Your task to perform on an android device: When is my next meeting? Image 0: 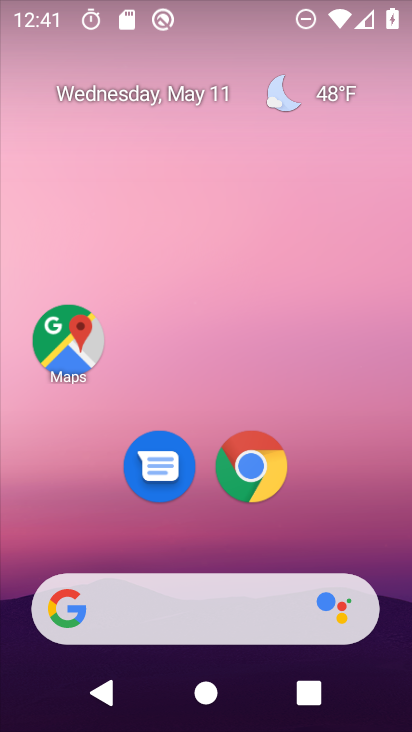
Step 0: press home button
Your task to perform on an android device: When is my next meeting? Image 1: 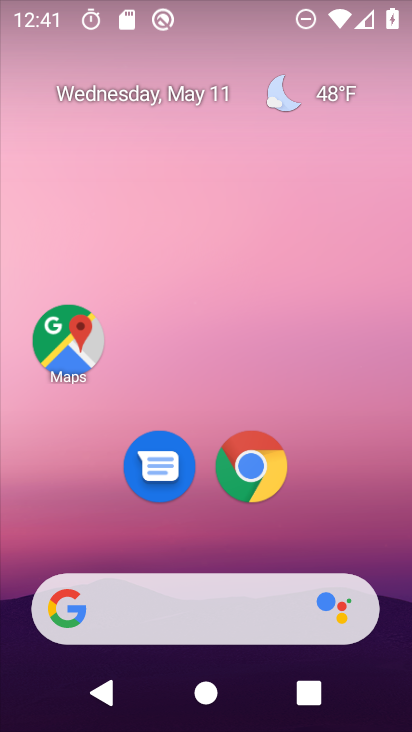
Step 1: drag from (210, 544) to (251, 24)
Your task to perform on an android device: When is my next meeting? Image 2: 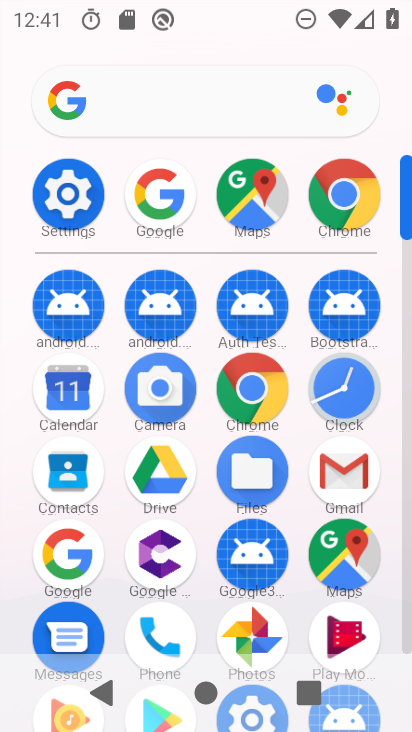
Step 2: click (64, 389)
Your task to perform on an android device: When is my next meeting? Image 3: 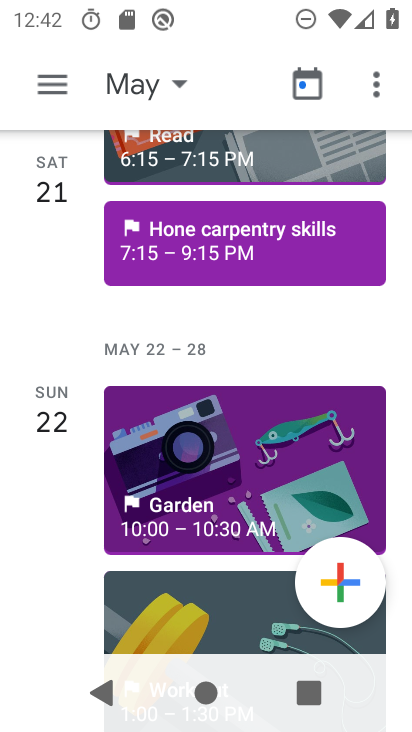
Step 3: click (55, 78)
Your task to perform on an android device: When is my next meeting? Image 4: 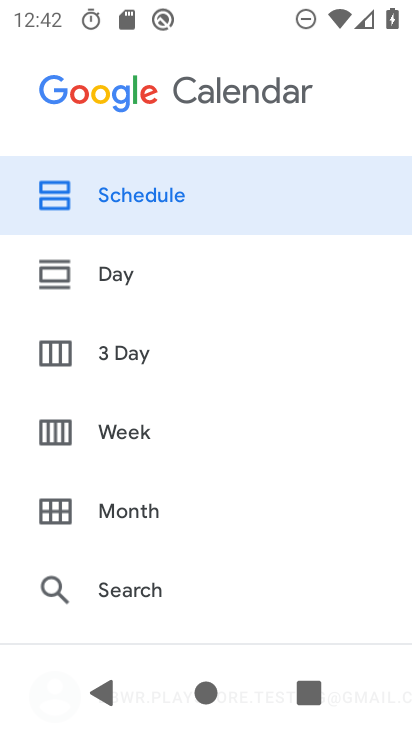
Step 4: drag from (83, 586) to (90, 409)
Your task to perform on an android device: When is my next meeting? Image 5: 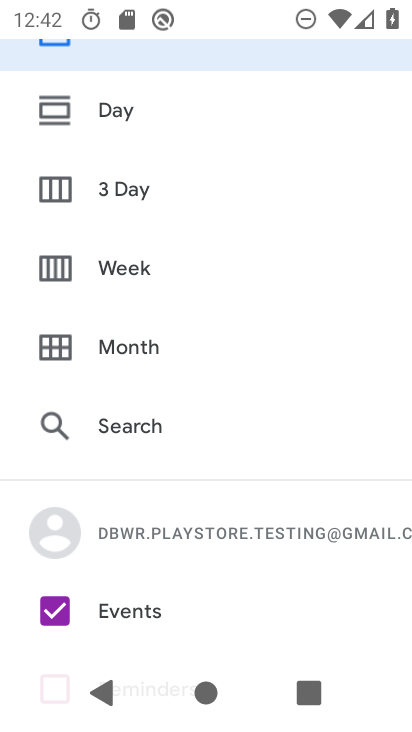
Step 5: click (89, 267)
Your task to perform on an android device: When is my next meeting? Image 6: 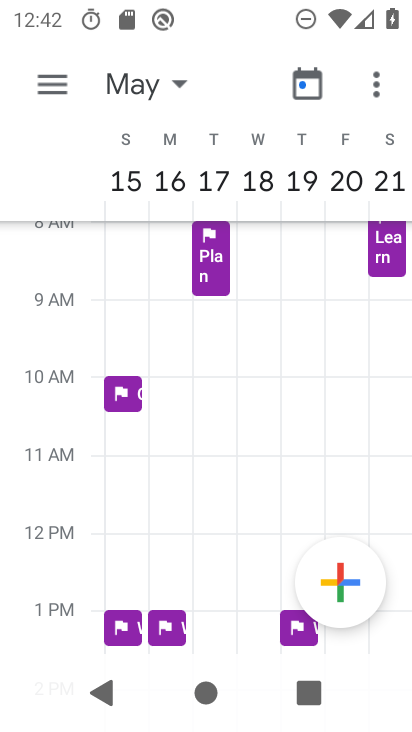
Step 6: drag from (92, 571) to (100, 397)
Your task to perform on an android device: When is my next meeting? Image 7: 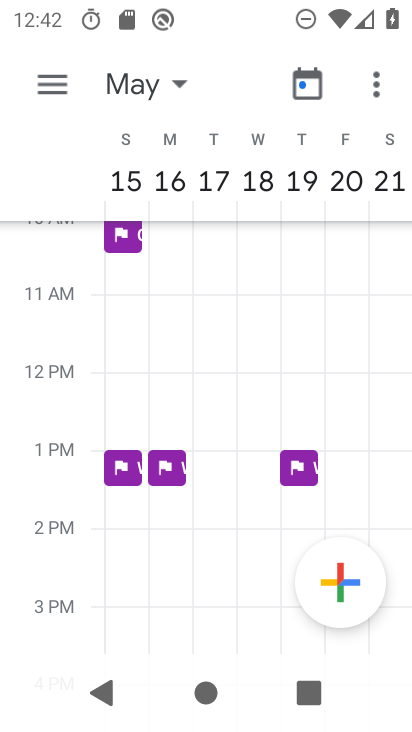
Step 7: click (128, 179)
Your task to perform on an android device: When is my next meeting? Image 8: 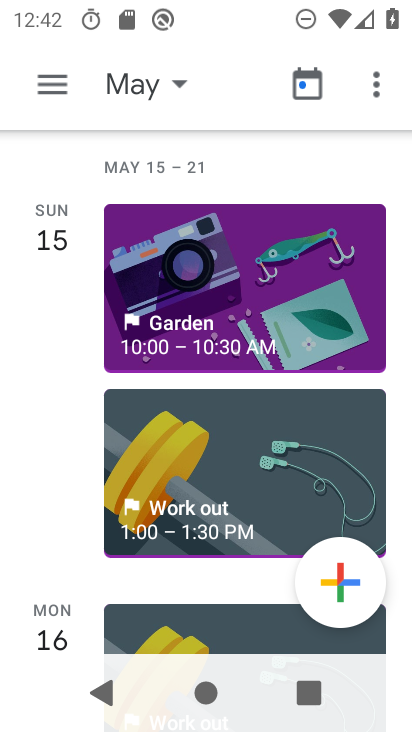
Step 8: task complete